Your task to perform on an android device: turn on location history Image 0: 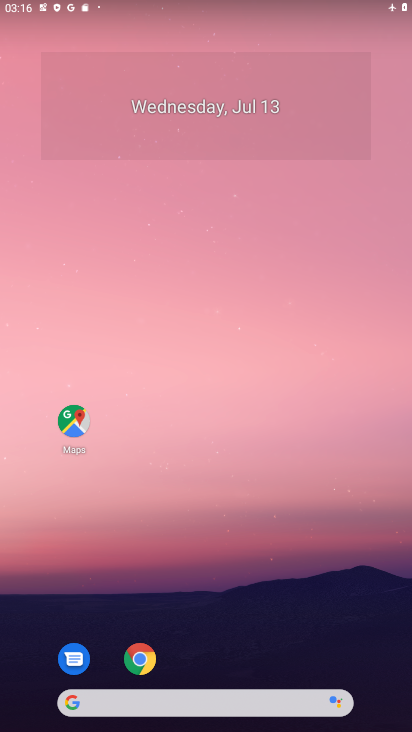
Step 0: drag from (339, 604) to (276, 148)
Your task to perform on an android device: turn on location history Image 1: 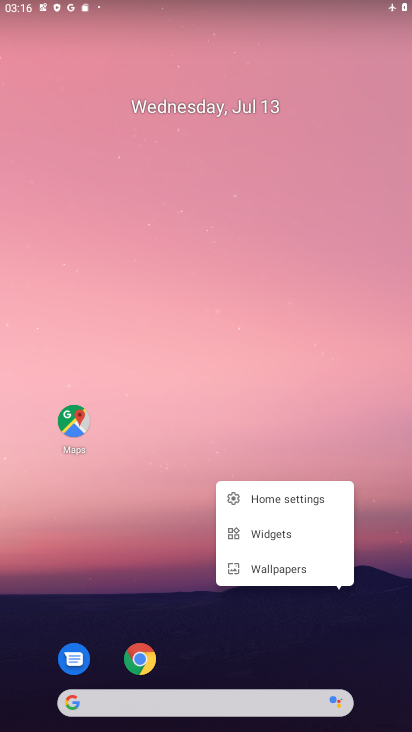
Step 1: click (224, 327)
Your task to perform on an android device: turn on location history Image 2: 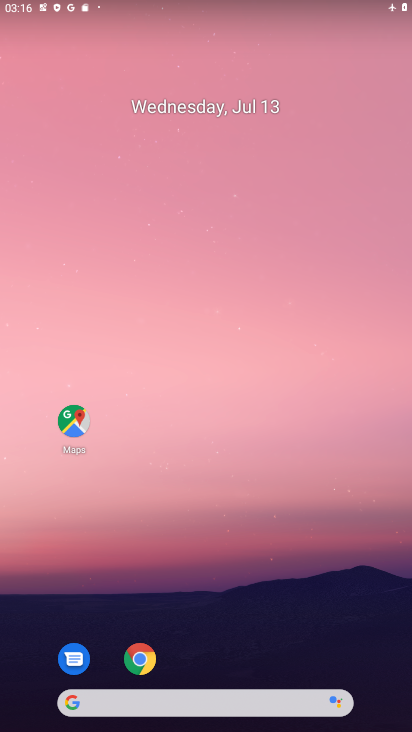
Step 2: drag from (212, 618) to (232, 110)
Your task to perform on an android device: turn on location history Image 3: 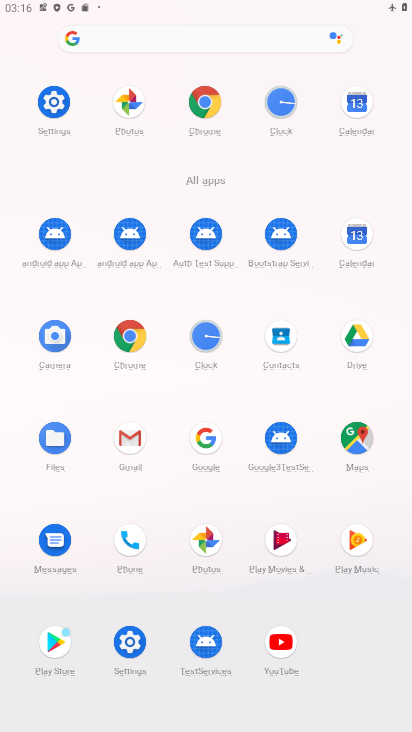
Step 3: click (76, 111)
Your task to perform on an android device: turn on location history Image 4: 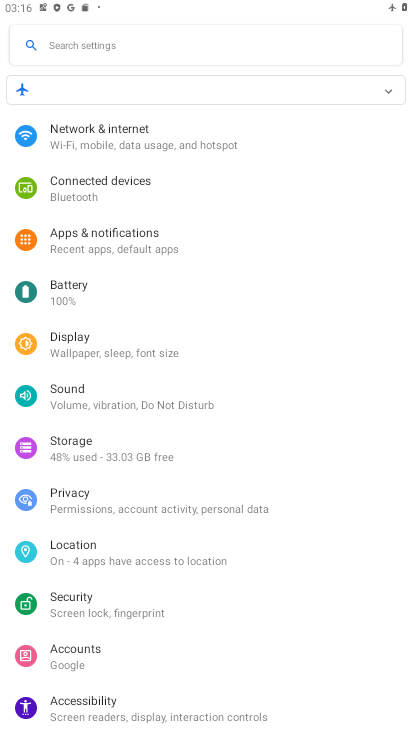
Step 4: click (108, 552)
Your task to perform on an android device: turn on location history Image 5: 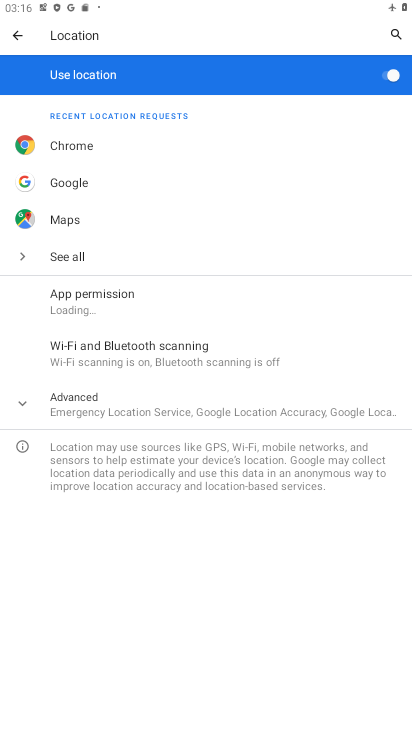
Step 5: task complete